Your task to perform on an android device: Go to calendar. Show me events next week Image 0: 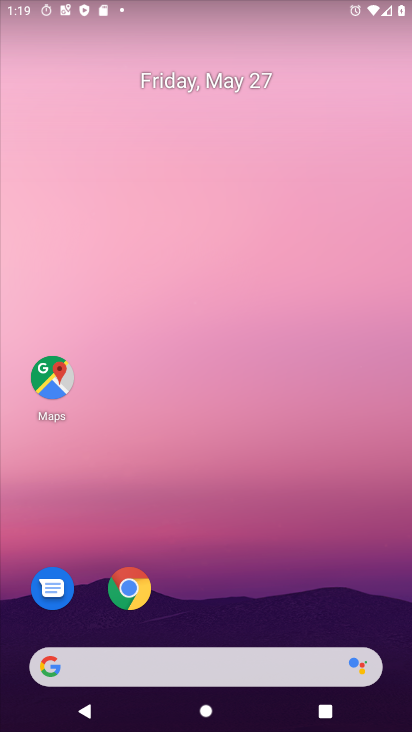
Step 0: press home button
Your task to perform on an android device: Go to calendar. Show me events next week Image 1: 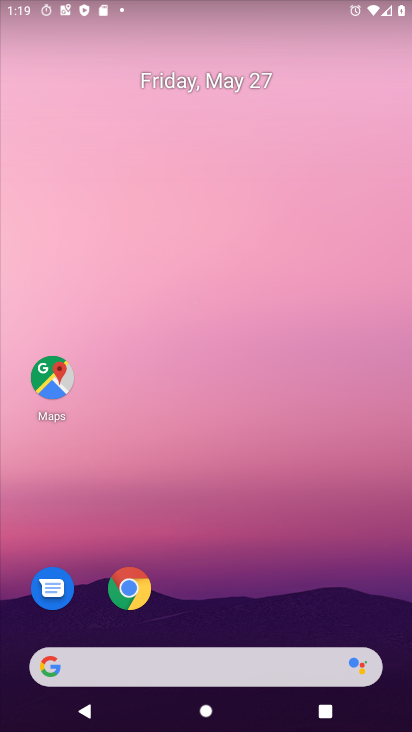
Step 1: drag from (211, 630) to (210, 27)
Your task to perform on an android device: Go to calendar. Show me events next week Image 2: 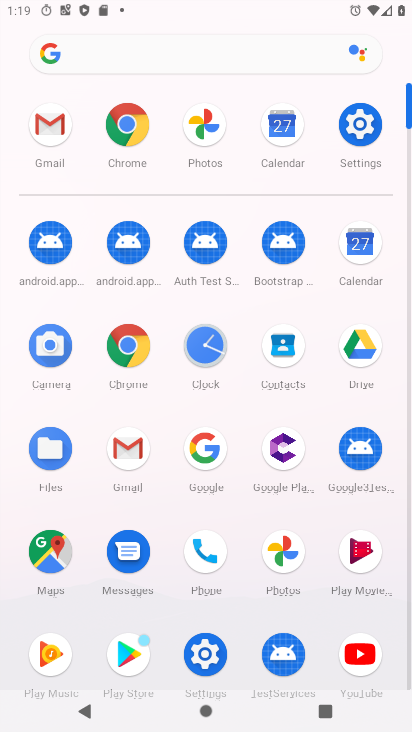
Step 2: click (360, 237)
Your task to perform on an android device: Go to calendar. Show me events next week Image 3: 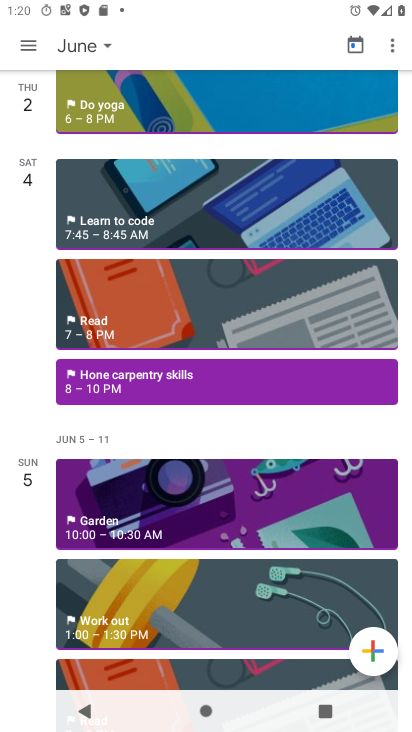
Step 3: click (101, 49)
Your task to perform on an android device: Go to calendar. Show me events next week Image 4: 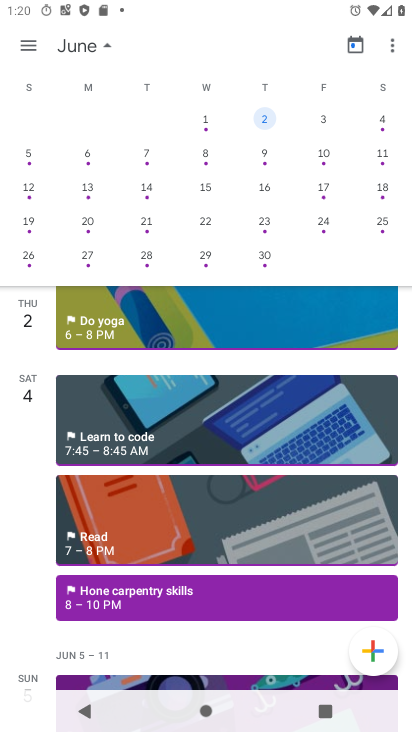
Step 4: drag from (76, 134) to (401, 151)
Your task to perform on an android device: Go to calendar. Show me events next week Image 5: 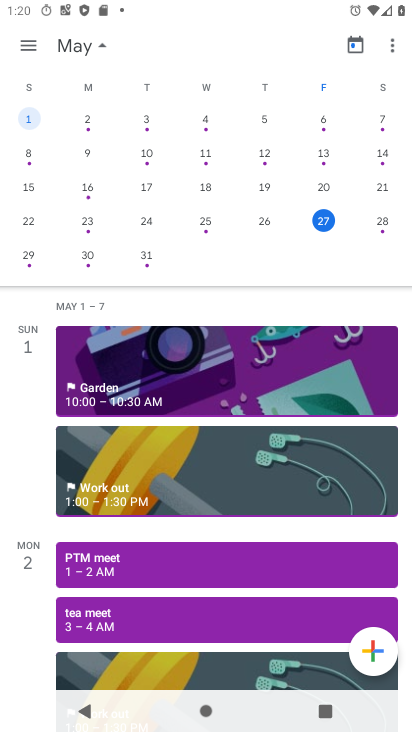
Step 5: click (26, 259)
Your task to perform on an android device: Go to calendar. Show me events next week Image 6: 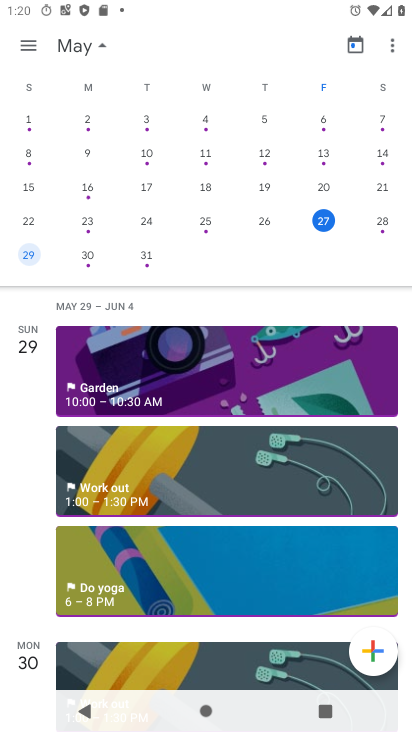
Step 6: click (102, 41)
Your task to perform on an android device: Go to calendar. Show me events next week Image 7: 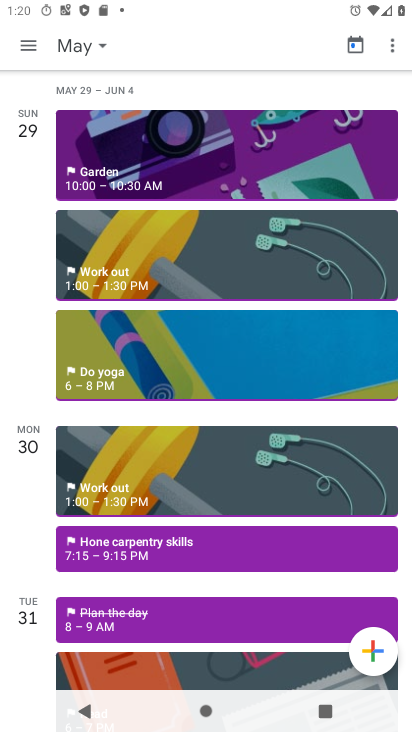
Step 7: task complete